Your task to perform on an android device: Go to sound settings Image 0: 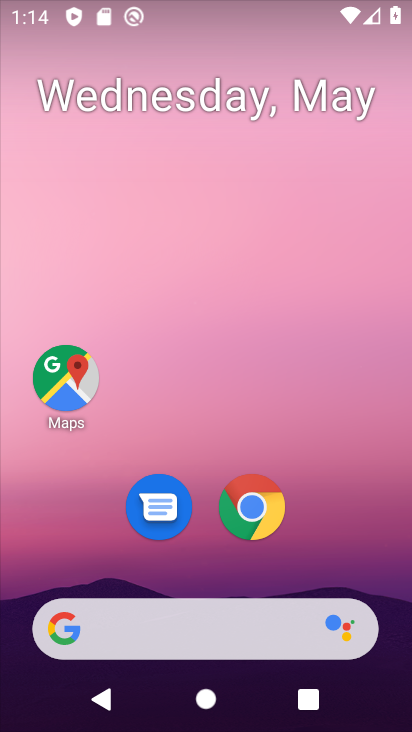
Step 0: drag from (395, 533) to (304, 127)
Your task to perform on an android device: Go to sound settings Image 1: 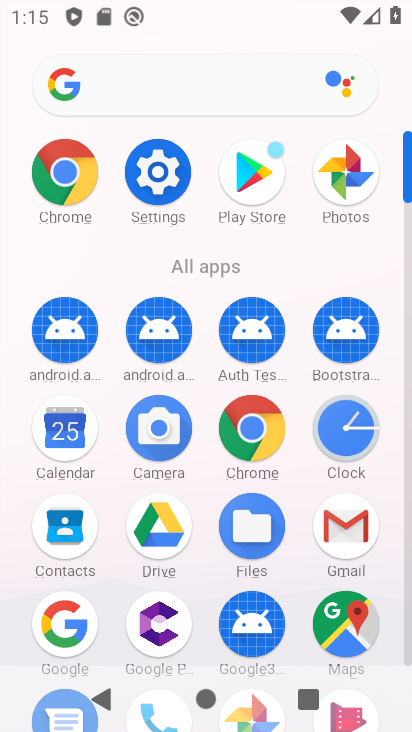
Step 1: click (174, 181)
Your task to perform on an android device: Go to sound settings Image 2: 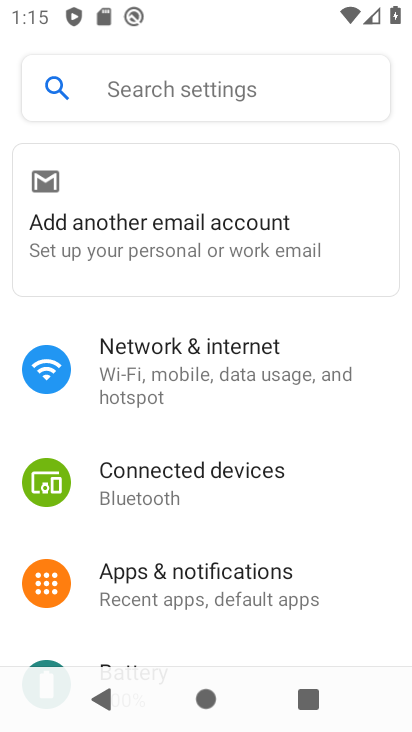
Step 2: drag from (229, 593) to (181, 203)
Your task to perform on an android device: Go to sound settings Image 3: 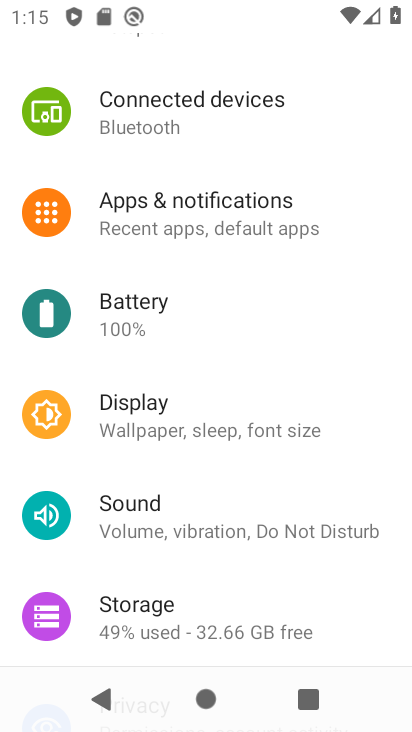
Step 3: click (245, 534)
Your task to perform on an android device: Go to sound settings Image 4: 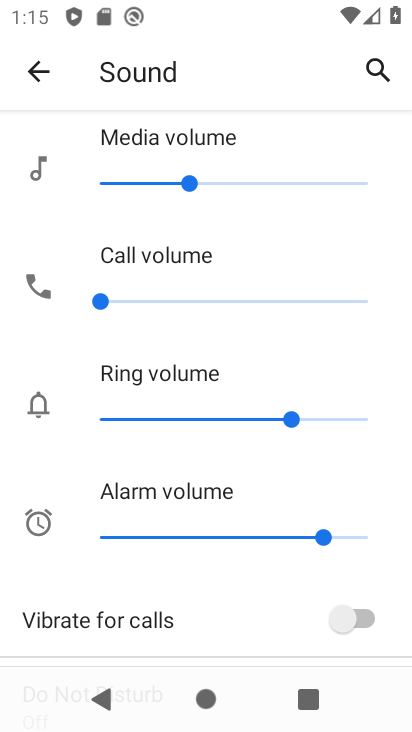
Step 4: task complete